Your task to perform on an android device: turn on wifi Image 0: 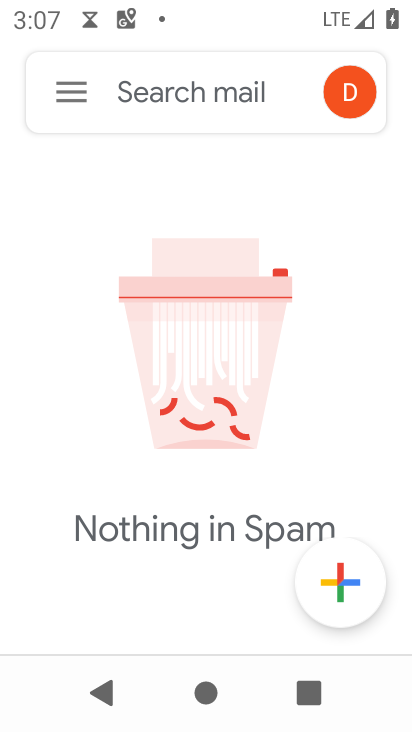
Step 0: press home button
Your task to perform on an android device: turn on wifi Image 1: 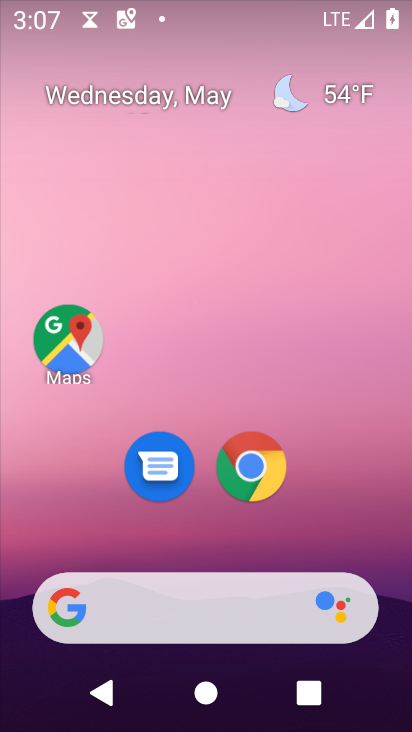
Step 1: drag from (334, 501) to (258, 140)
Your task to perform on an android device: turn on wifi Image 2: 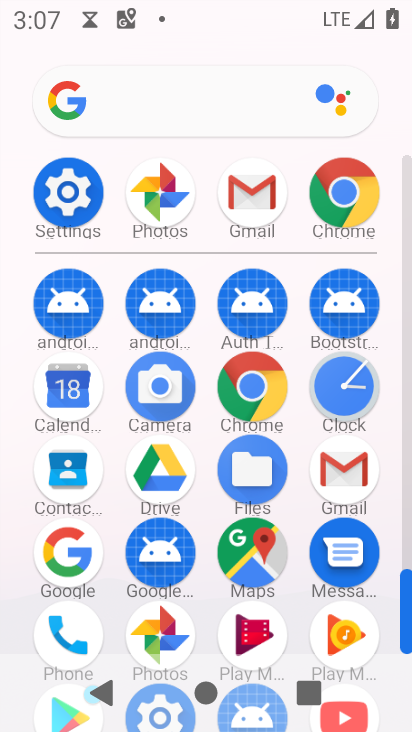
Step 2: click (57, 177)
Your task to perform on an android device: turn on wifi Image 3: 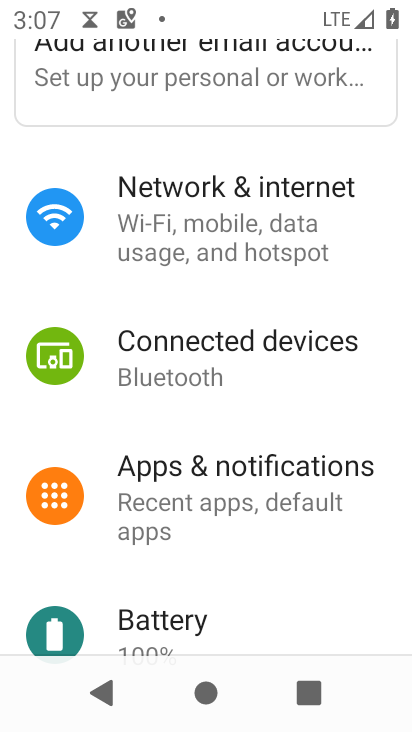
Step 3: click (259, 227)
Your task to perform on an android device: turn on wifi Image 4: 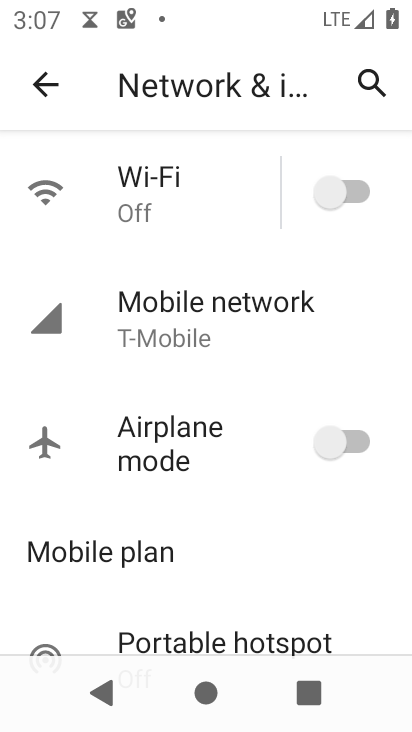
Step 4: click (363, 198)
Your task to perform on an android device: turn on wifi Image 5: 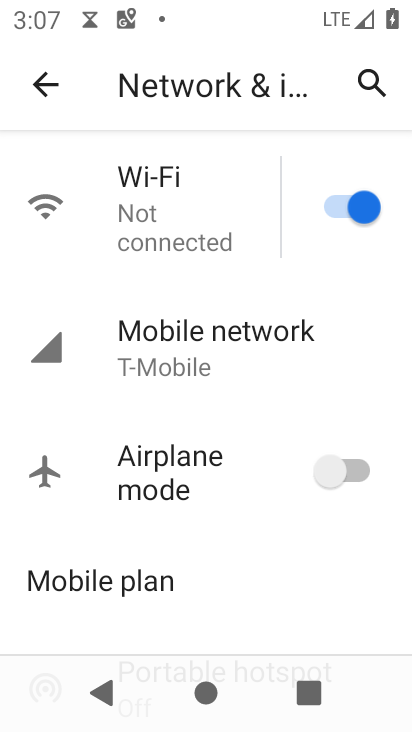
Step 5: task complete